Your task to perform on an android device: Go to internet settings Image 0: 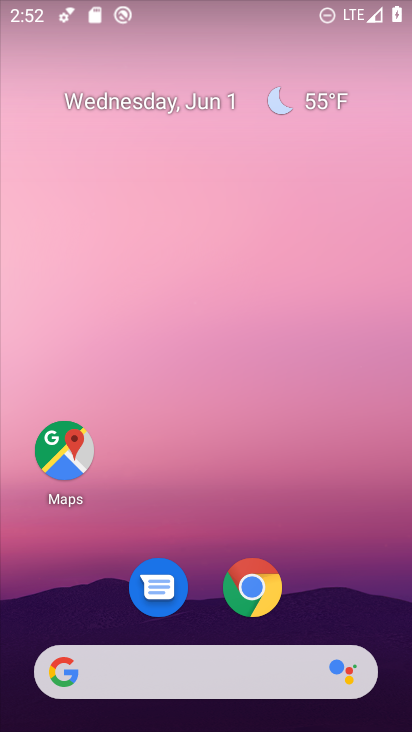
Step 0: press home button
Your task to perform on an android device: Go to internet settings Image 1: 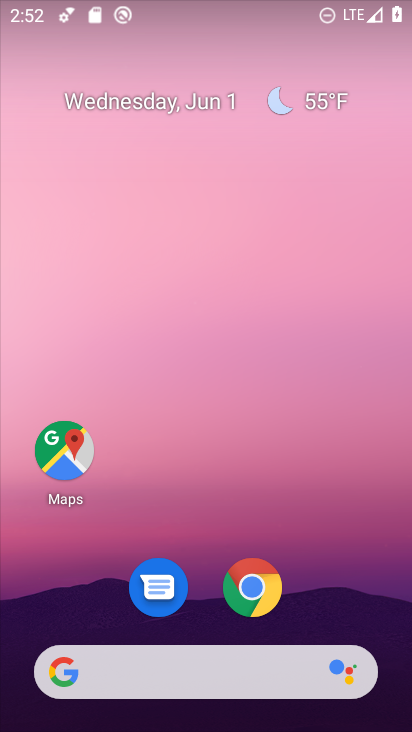
Step 1: drag from (192, 664) to (194, 568)
Your task to perform on an android device: Go to internet settings Image 2: 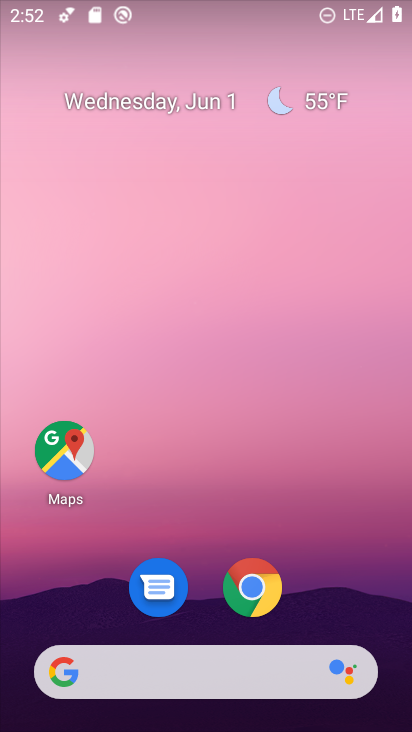
Step 2: drag from (199, 662) to (286, 276)
Your task to perform on an android device: Go to internet settings Image 3: 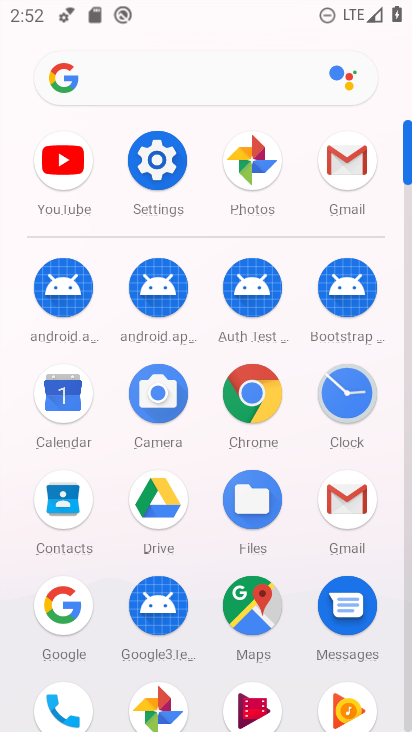
Step 3: click (157, 162)
Your task to perform on an android device: Go to internet settings Image 4: 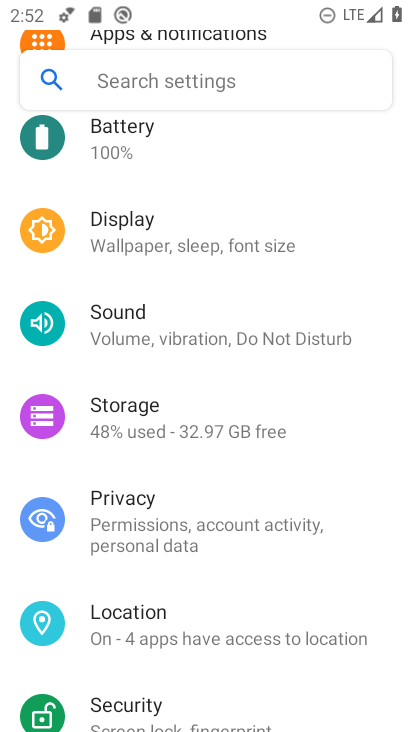
Step 4: drag from (155, 201) to (160, 453)
Your task to perform on an android device: Go to internet settings Image 5: 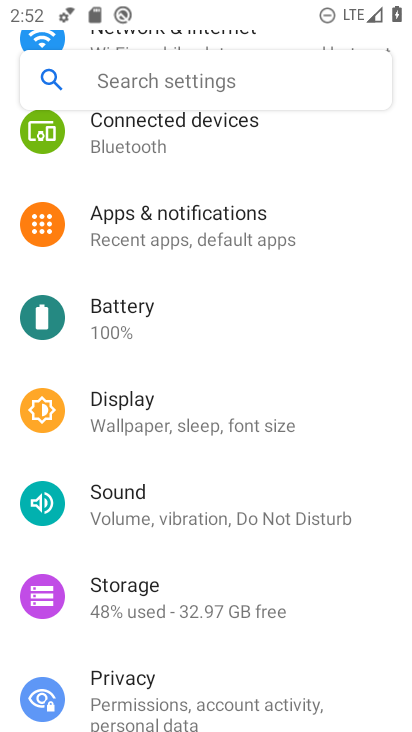
Step 5: drag from (201, 237) to (291, 415)
Your task to perform on an android device: Go to internet settings Image 6: 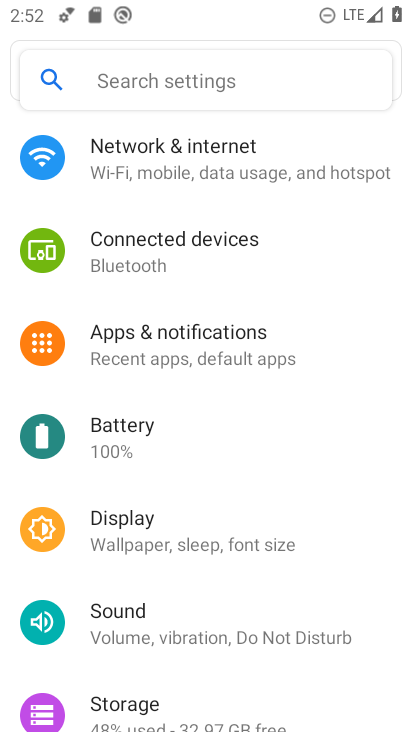
Step 6: click (148, 177)
Your task to perform on an android device: Go to internet settings Image 7: 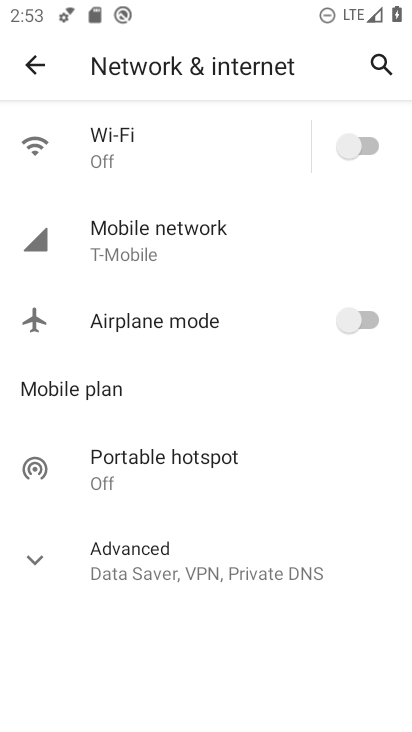
Step 7: task complete